Your task to perform on an android device: Do I have any events this weekend? Image 0: 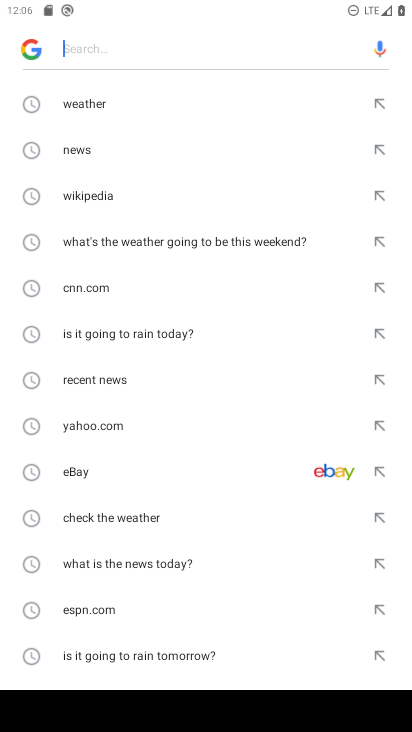
Step 0: press home button
Your task to perform on an android device: Do I have any events this weekend? Image 1: 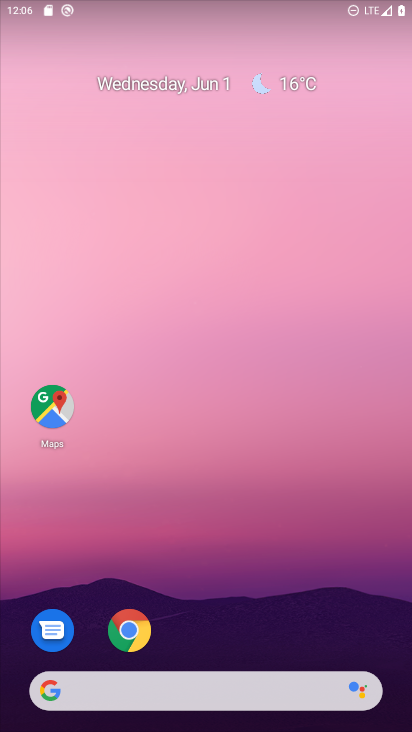
Step 1: drag from (274, 577) to (264, 146)
Your task to perform on an android device: Do I have any events this weekend? Image 2: 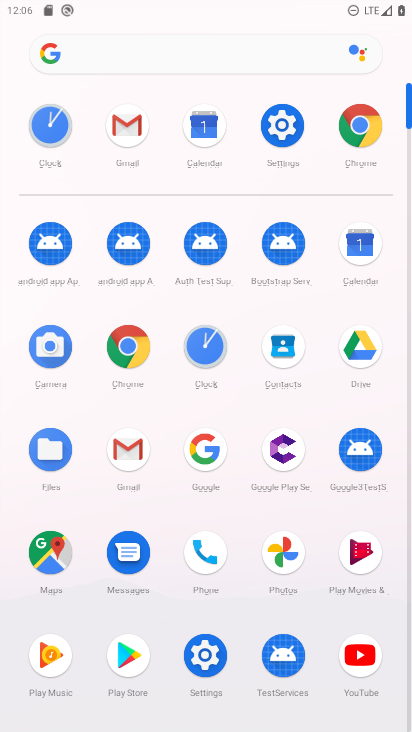
Step 2: click (202, 342)
Your task to perform on an android device: Do I have any events this weekend? Image 3: 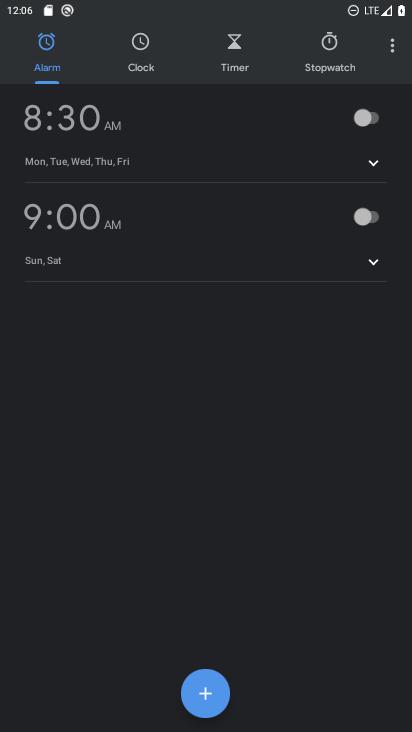
Step 3: press home button
Your task to perform on an android device: Do I have any events this weekend? Image 4: 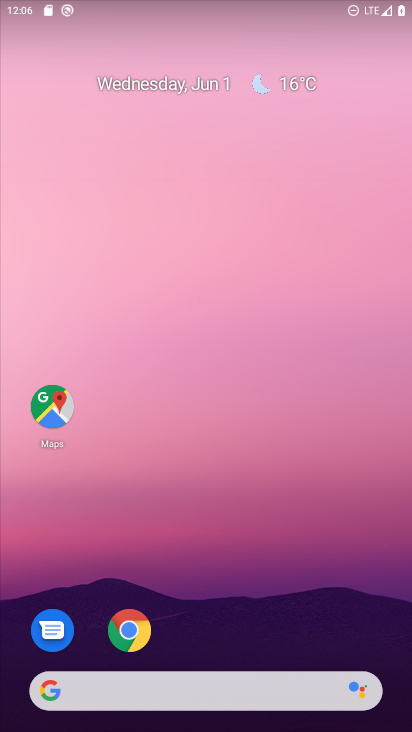
Step 4: drag from (244, 596) to (263, 185)
Your task to perform on an android device: Do I have any events this weekend? Image 5: 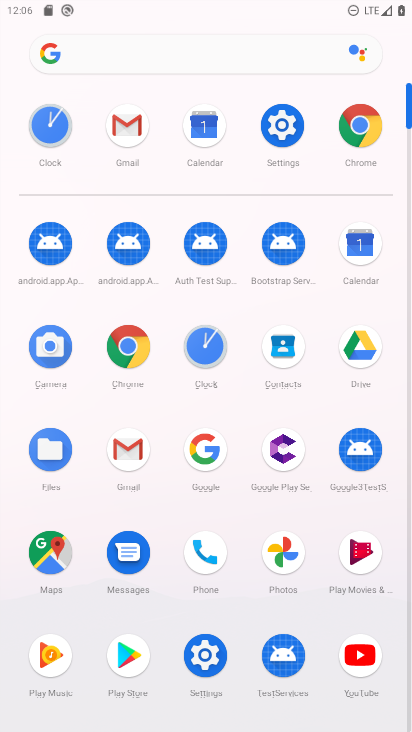
Step 5: click (356, 253)
Your task to perform on an android device: Do I have any events this weekend? Image 6: 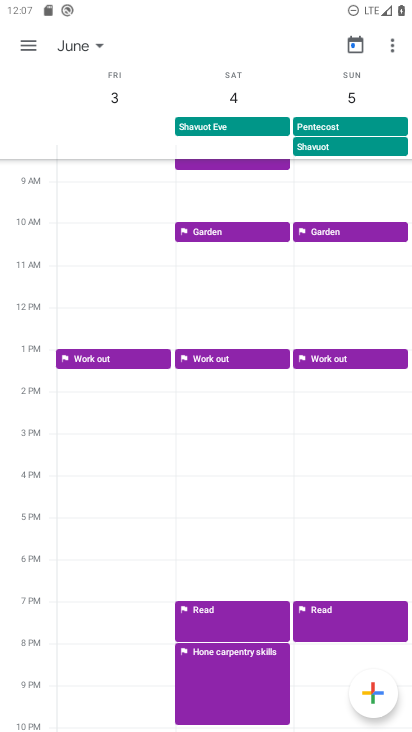
Step 6: task complete